Your task to perform on an android device: add a contact Image 0: 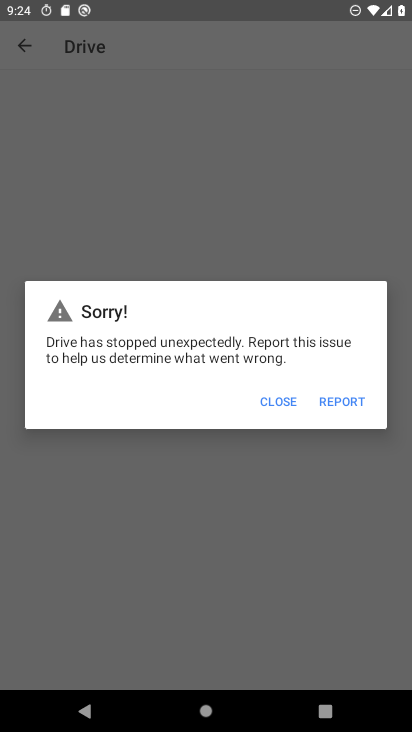
Step 0: press home button
Your task to perform on an android device: add a contact Image 1: 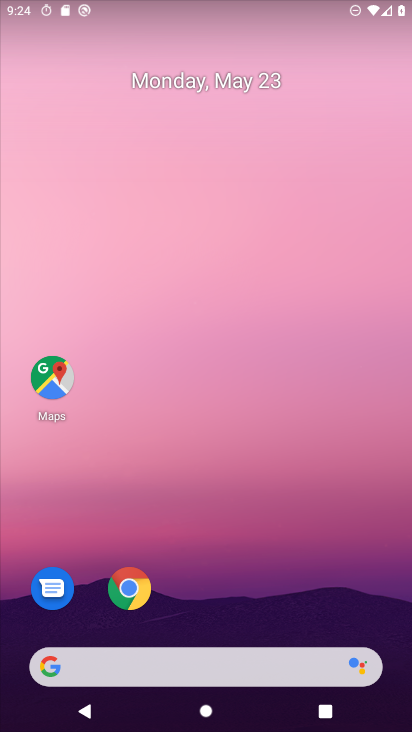
Step 1: drag from (397, 710) to (317, 205)
Your task to perform on an android device: add a contact Image 2: 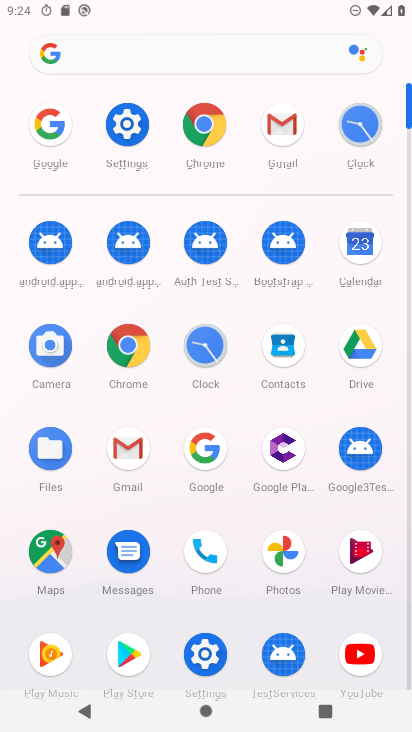
Step 2: click (273, 353)
Your task to perform on an android device: add a contact Image 3: 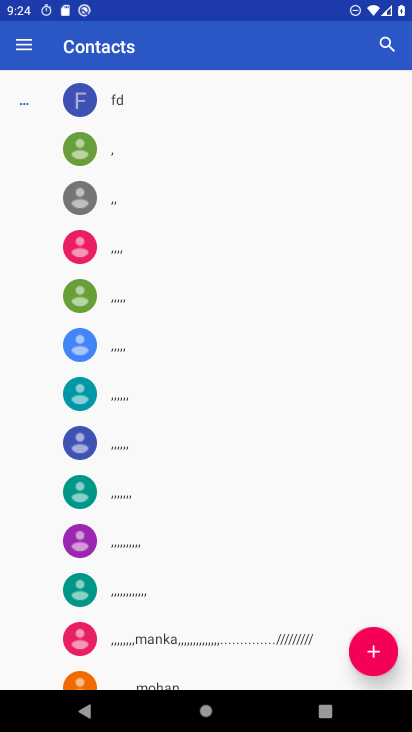
Step 3: click (362, 655)
Your task to perform on an android device: add a contact Image 4: 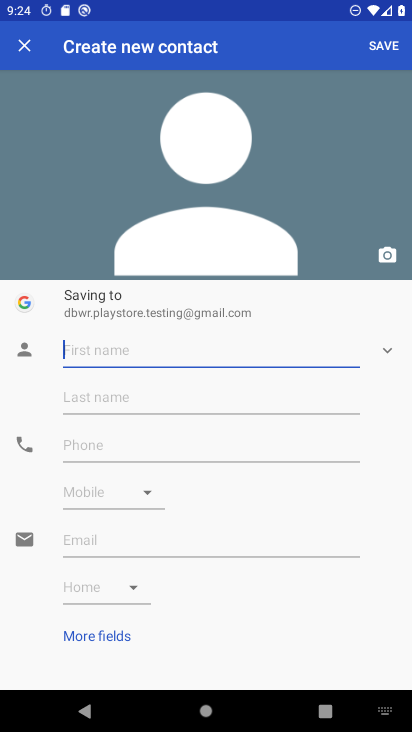
Step 4: type "jha"
Your task to perform on an android device: add a contact Image 5: 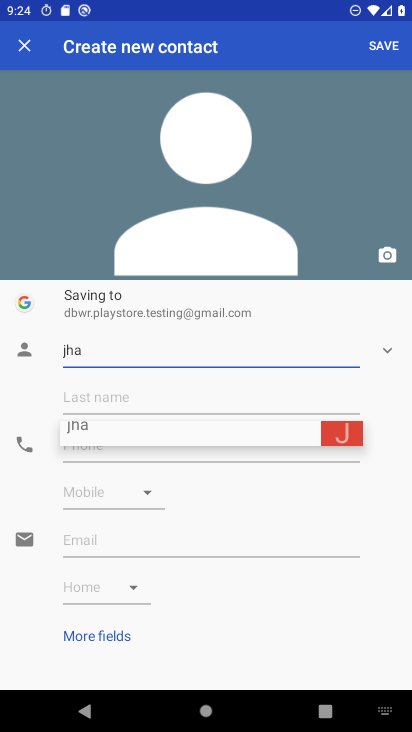
Step 5: click (91, 400)
Your task to perform on an android device: add a contact Image 6: 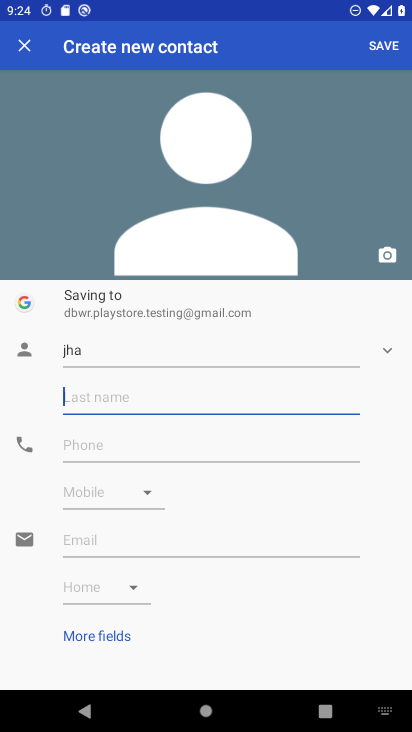
Step 6: type "ja"
Your task to perform on an android device: add a contact Image 7: 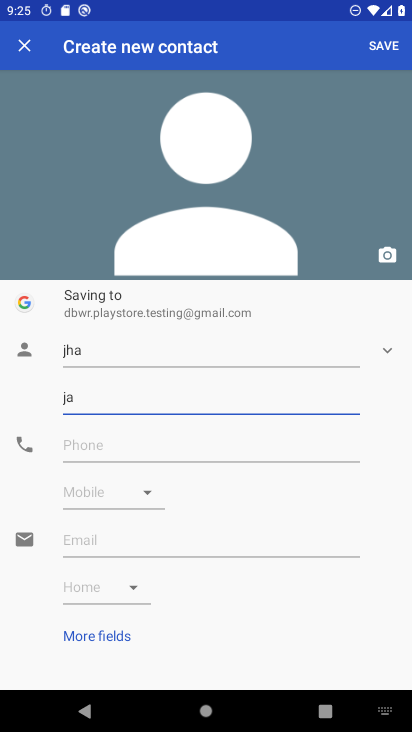
Step 7: click (74, 446)
Your task to perform on an android device: add a contact Image 8: 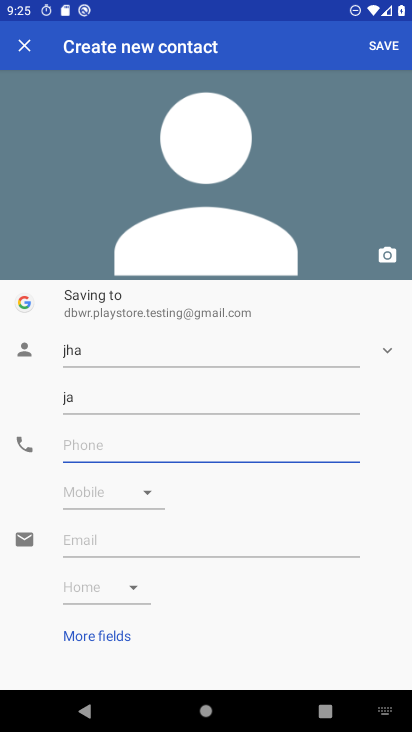
Step 8: type "5656444446"
Your task to perform on an android device: add a contact Image 9: 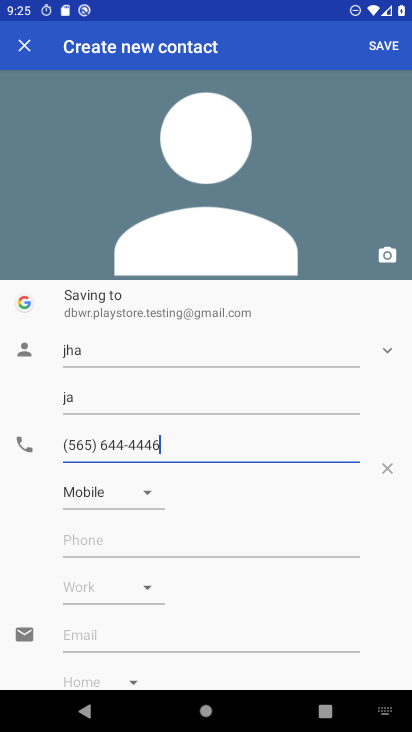
Step 9: click (365, 44)
Your task to perform on an android device: add a contact Image 10: 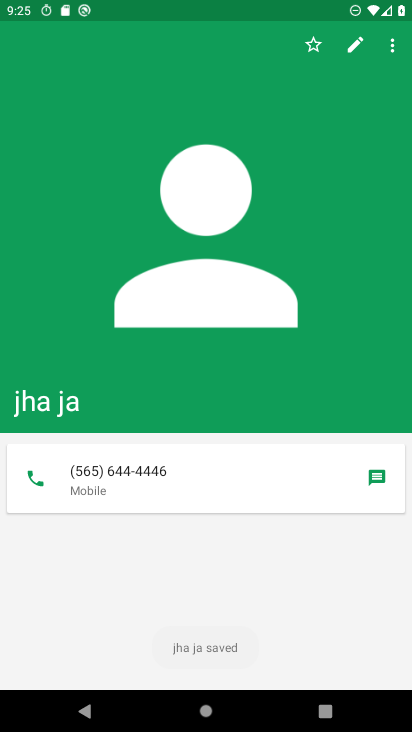
Step 10: task complete